Your task to perform on an android device: Open calendar and show me the fourth week of next month Image 0: 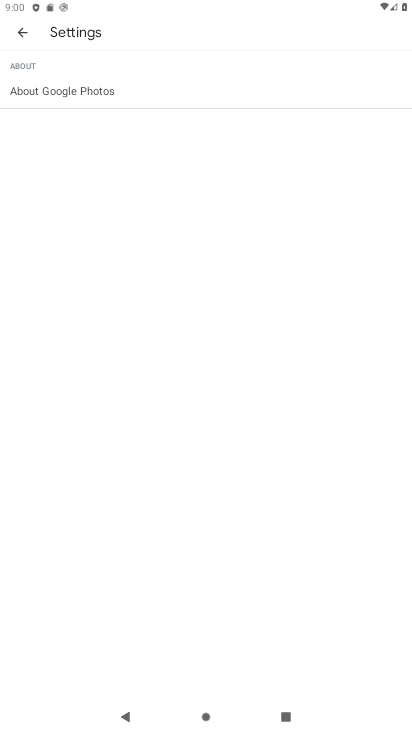
Step 0: task complete